Your task to perform on an android device: When is my next meeting? Image 0: 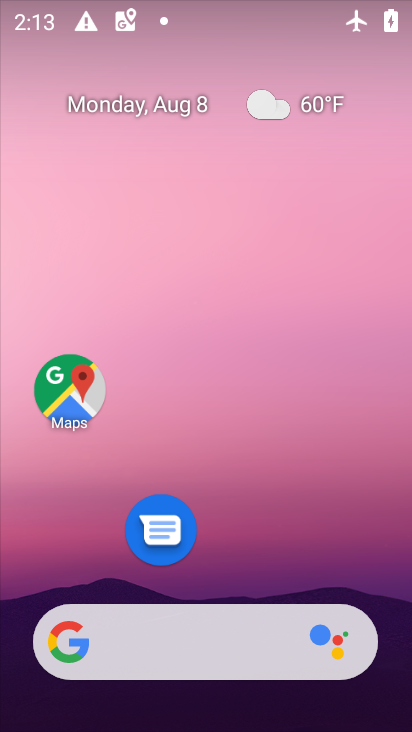
Step 0: drag from (187, 647) to (189, 106)
Your task to perform on an android device: When is my next meeting? Image 1: 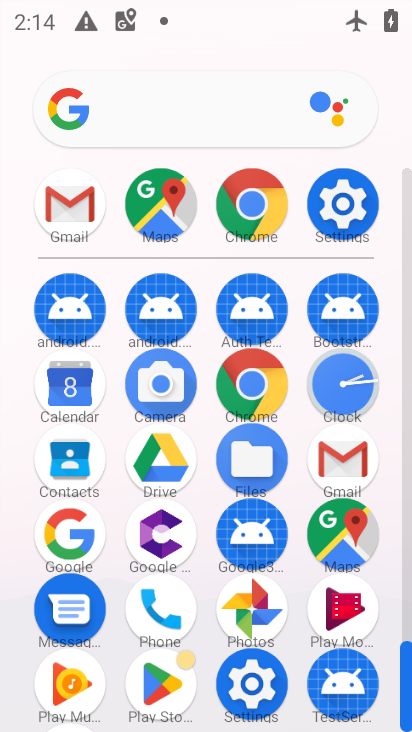
Step 1: click (75, 387)
Your task to perform on an android device: When is my next meeting? Image 2: 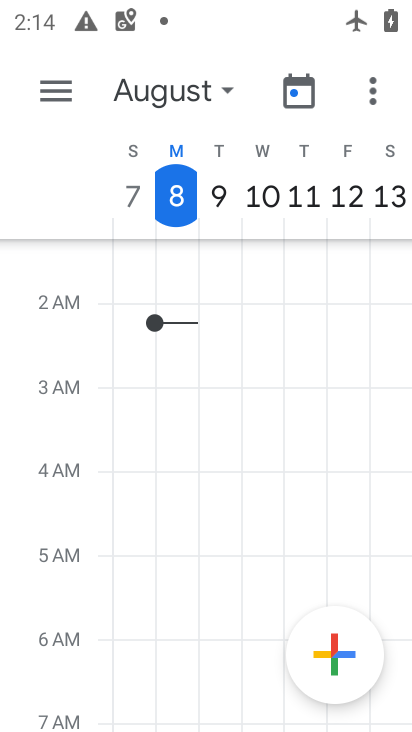
Step 2: click (221, 192)
Your task to perform on an android device: When is my next meeting? Image 3: 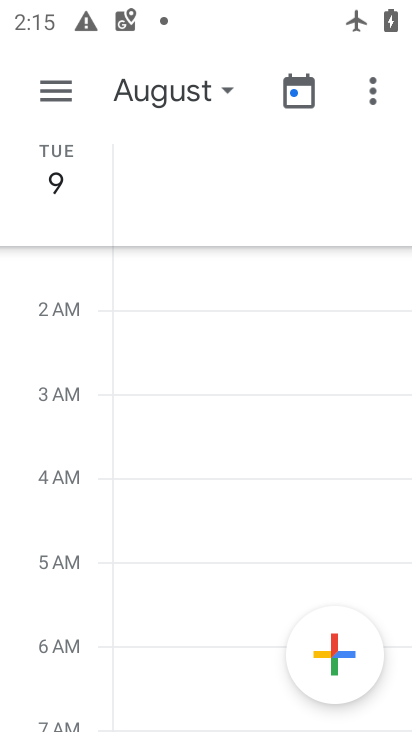
Step 3: task complete